Your task to perform on an android device: delete a single message in the gmail app Image 0: 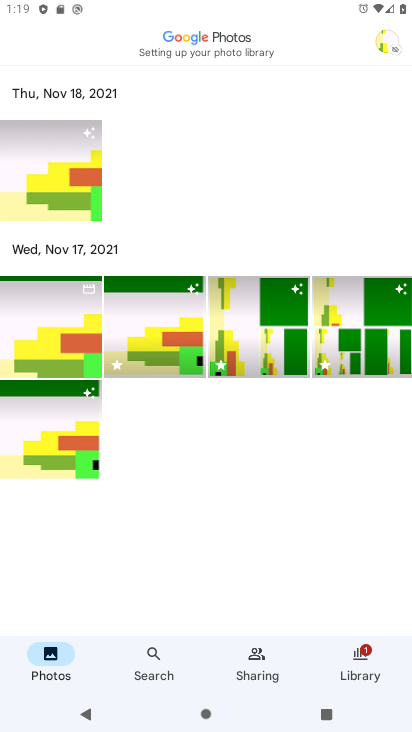
Step 0: press home button
Your task to perform on an android device: delete a single message in the gmail app Image 1: 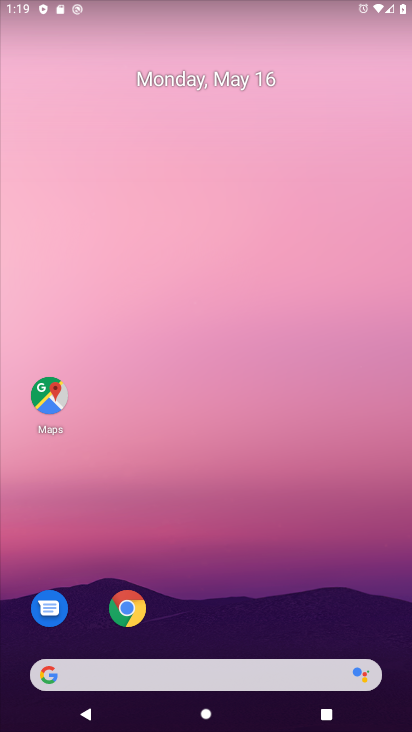
Step 1: drag from (227, 551) to (287, 158)
Your task to perform on an android device: delete a single message in the gmail app Image 2: 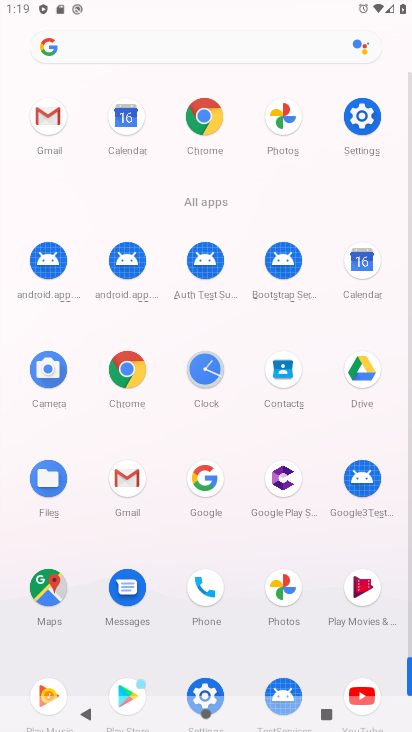
Step 2: click (119, 496)
Your task to perform on an android device: delete a single message in the gmail app Image 3: 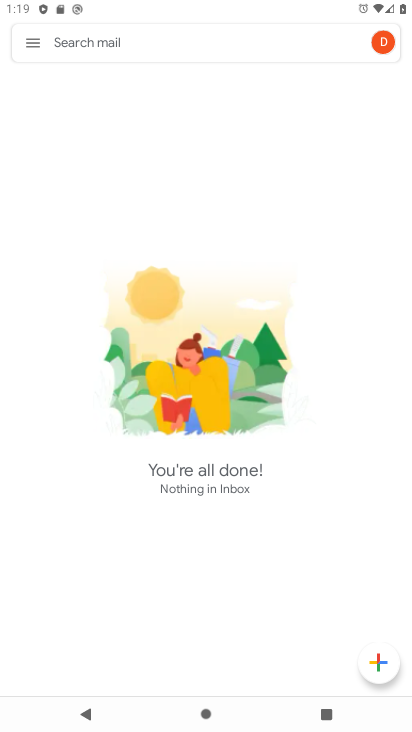
Step 3: task complete